Your task to perform on an android device: Open Google Chrome and open the bookmarks view Image 0: 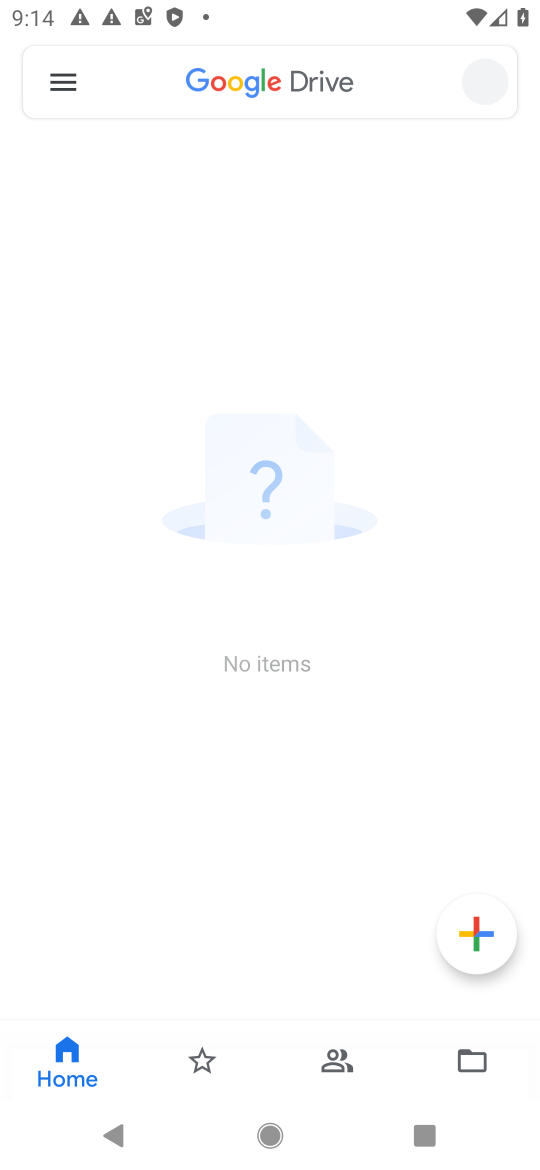
Step 0: press home button
Your task to perform on an android device: Open Google Chrome and open the bookmarks view Image 1: 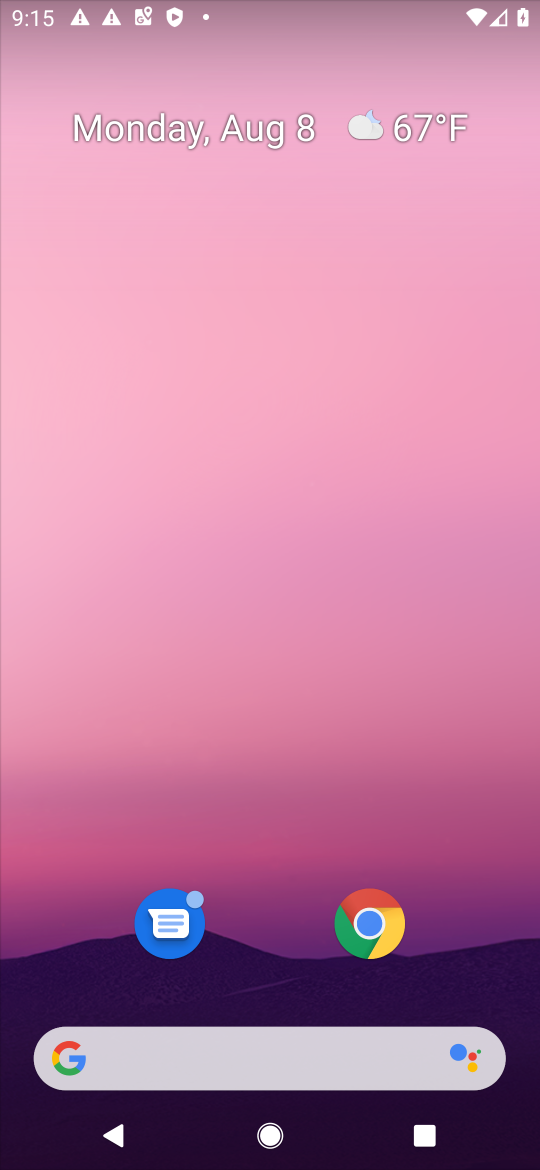
Step 1: click (380, 918)
Your task to perform on an android device: Open Google Chrome and open the bookmarks view Image 2: 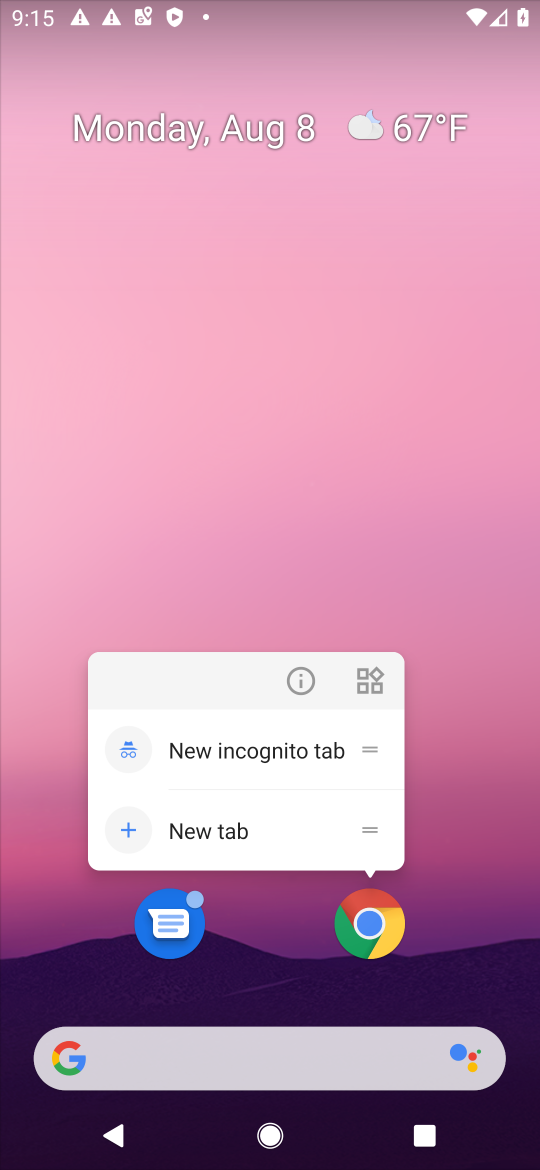
Step 2: click (378, 928)
Your task to perform on an android device: Open Google Chrome and open the bookmarks view Image 3: 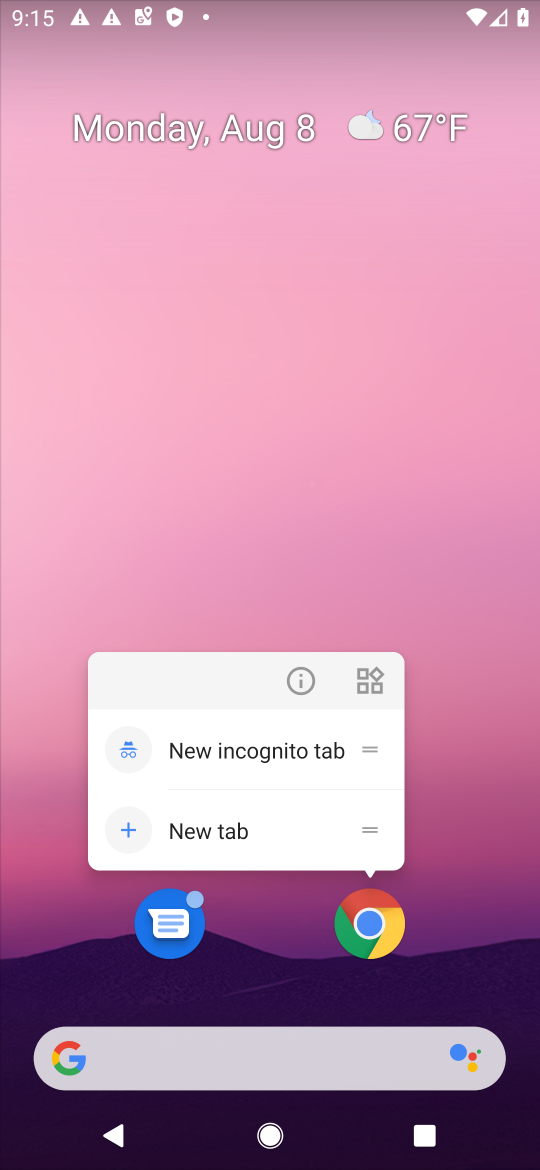
Step 3: click (378, 928)
Your task to perform on an android device: Open Google Chrome and open the bookmarks view Image 4: 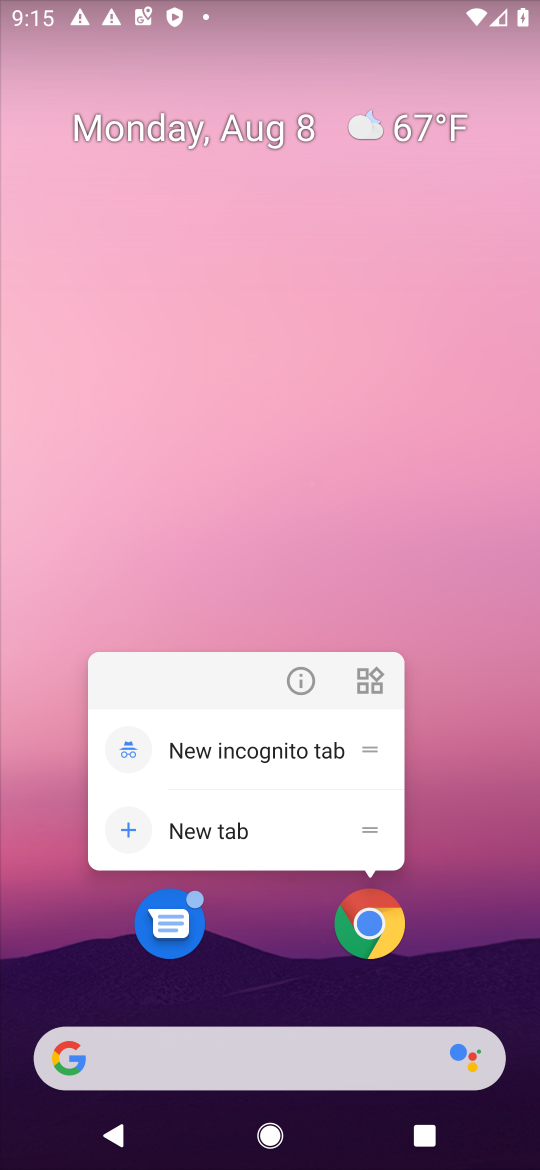
Step 4: task complete